Your task to perform on an android device: toggle show notifications on the lock screen Image 0: 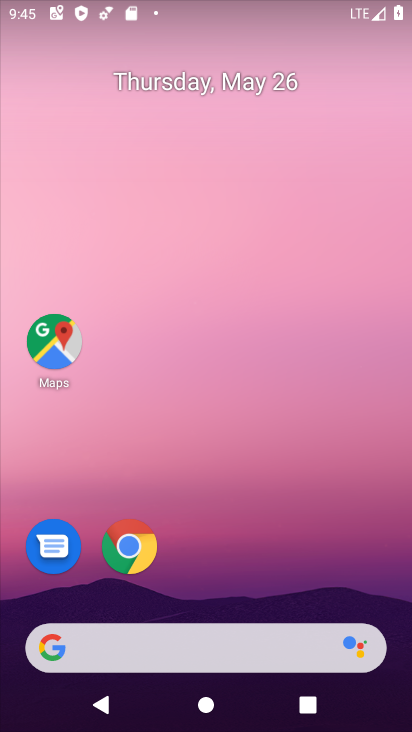
Step 0: drag from (289, 589) to (288, 192)
Your task to perform on an android device: toggle show notifications on the lock screen Image 1: 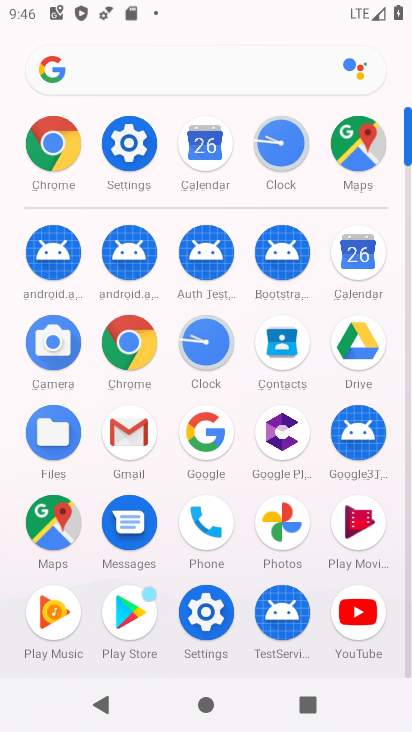
Step 1: click (221, 620)
Your task to perform on an android device: toggle show notifications on the lock screen Image 2: 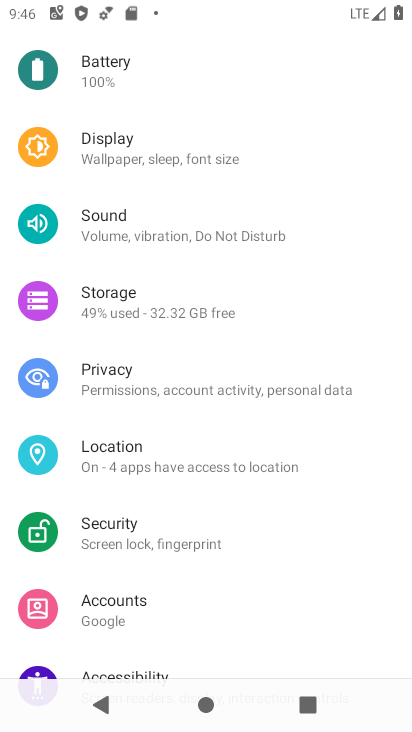
Step 2: drag from (273, 580) to (276, 263)
Your task to perform on an android device: toggle show notifications on the lock screen Image 3: 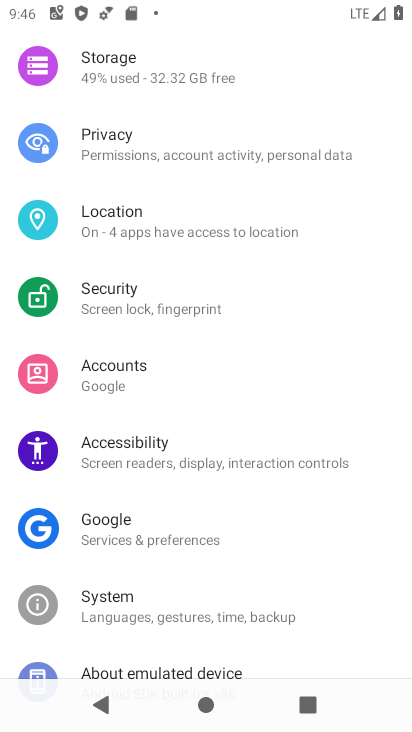
Step 3: drag from (219, 147) to (211, 579)
Your task to perform on an android device: toggle show notifications on the lock screen Image 4: 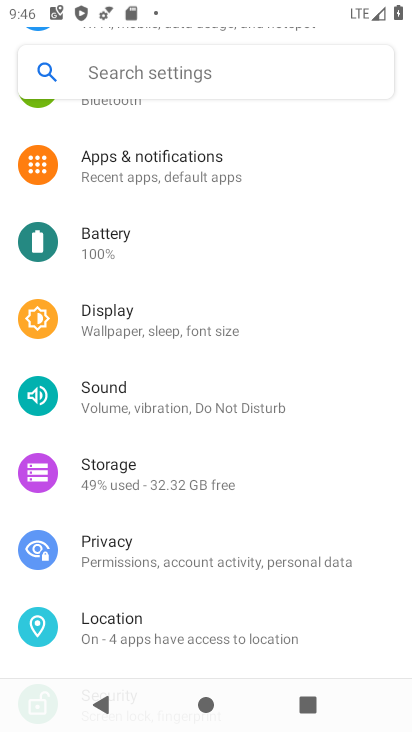
Step 4: click (180, 185)
Your task to perform on an android device: toggle show notifications on the lock screen Image 5: 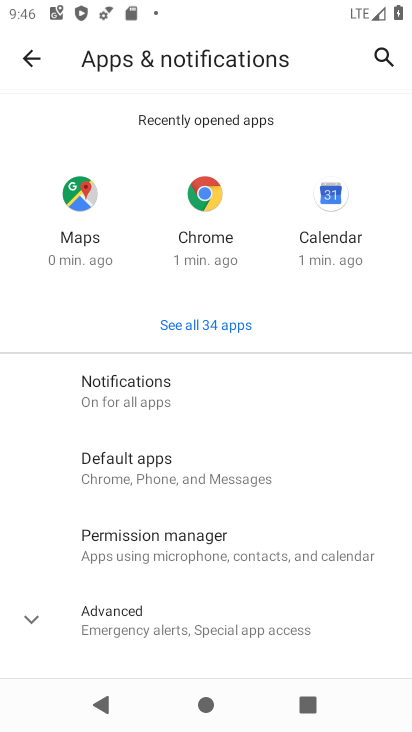
Step 5: click (126, 396)
Your task to perform on an android device: toggle show notifications on the lock screen Image 6: 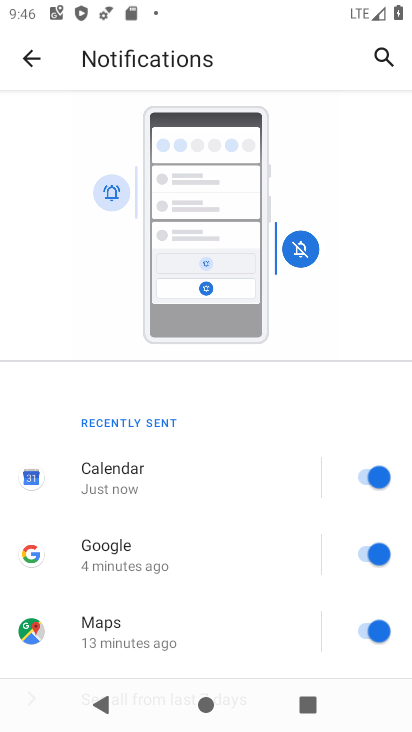
Step 6: drag from (172, 599) to (174, 271)
Your task to perform on an android device: toggle show notifications on the lock screen Image 7: 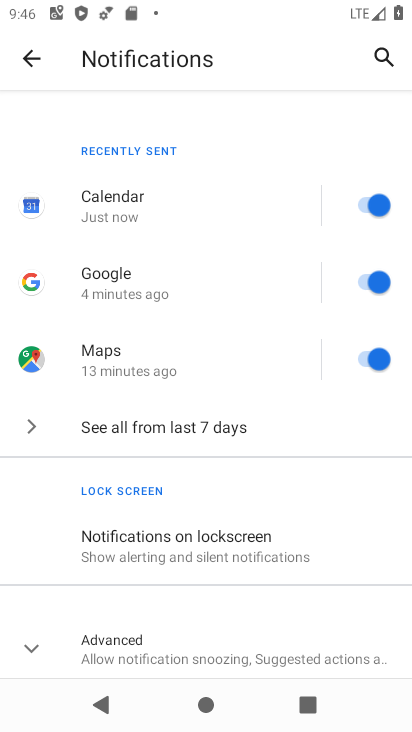
Step 7: click (161, 563)
Your task to perform on an android device: toggle show notifications on the lock screen Image 8: 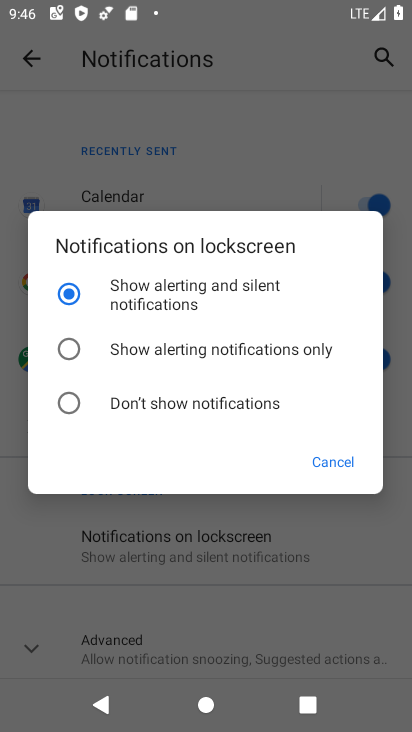
Step 8: click (64, 405)
Your task to perform on an android device: toggle show notifications on the lock screen Image 9: 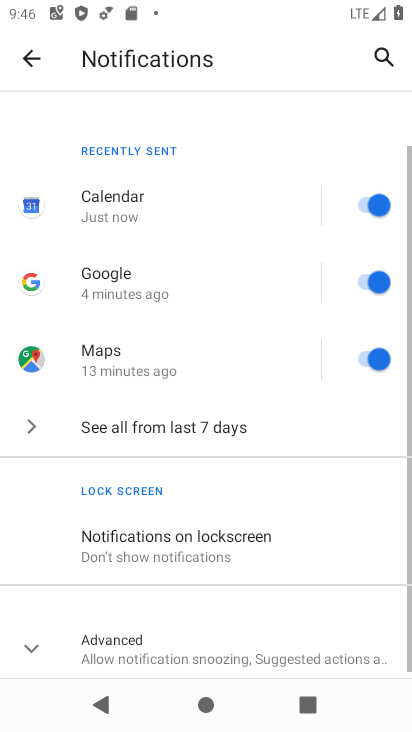
Step 9: task complete